Your task to perform on an android device: open chrome and create a bookmark for the current page Image 0: 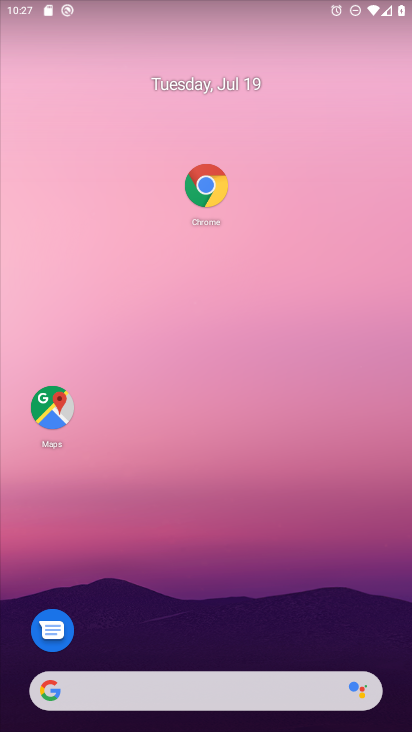
Step 0: drag from (195, 654) to (260, 274)
Your task to perform on an android device: open chrome and create a bookmark for the current page Image 1: 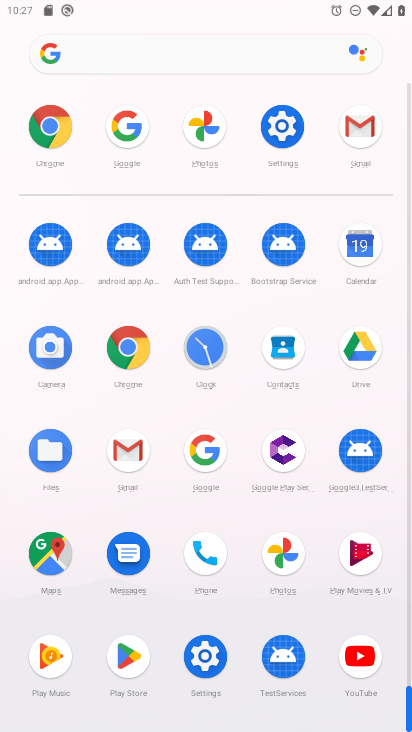
Step 1: click (33, 139)
Your task to perform on an android device: open chrome and create a bookmark for the current page Image 2: 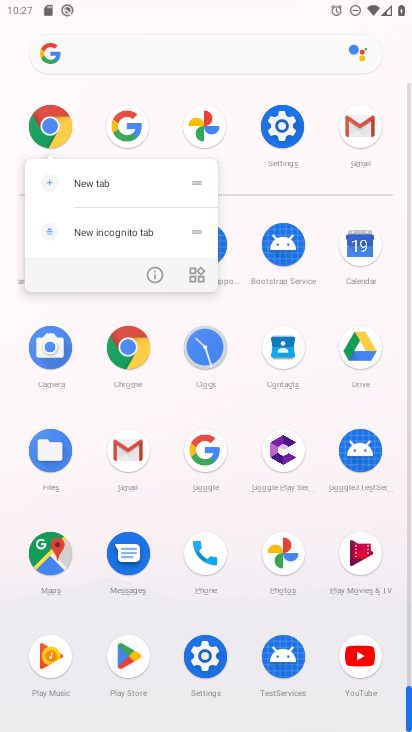
Step 2: click (114, 365)
Your task to perform on an android device: open chrome and create a bookmark for the current page Image 3: 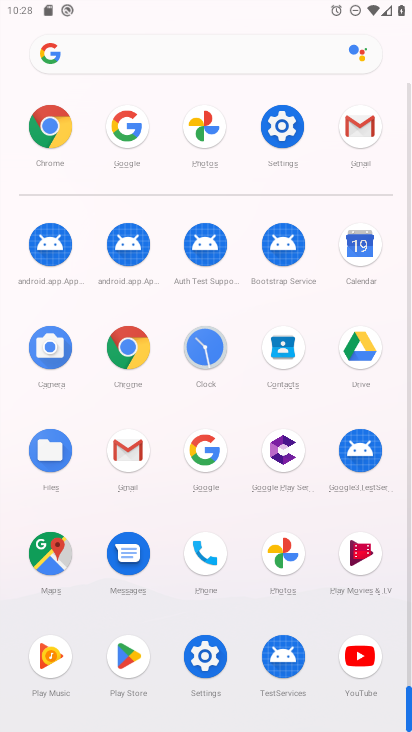
Step 3: click (61, 149)
Your task to perform on an android device: open chrome and create a bookmark for the current page Image 4: 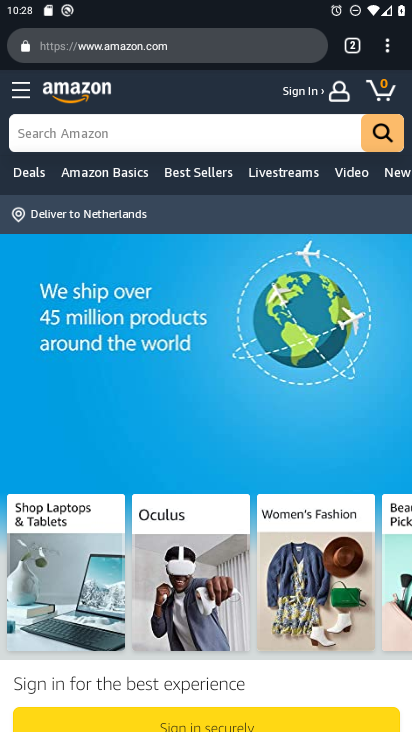
Step 4: click (390, 62)
Your task to perform on an android device: open chrome and create a bookmark for the current page Image 5: 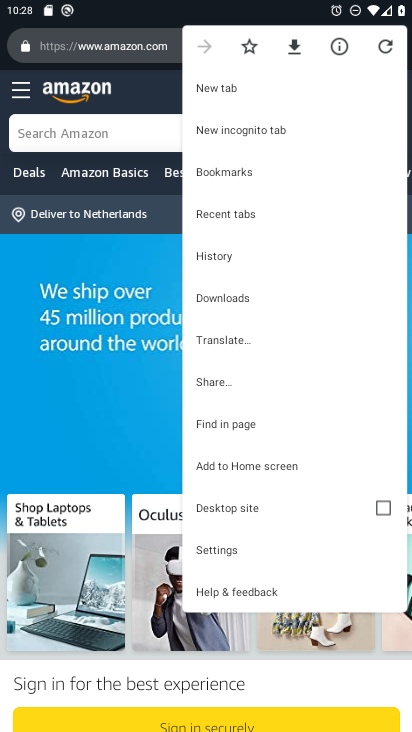
Step 5: click (247, 47)
Your task to perform on an android device: open chrome and create a bookmark for the current page Image 6: 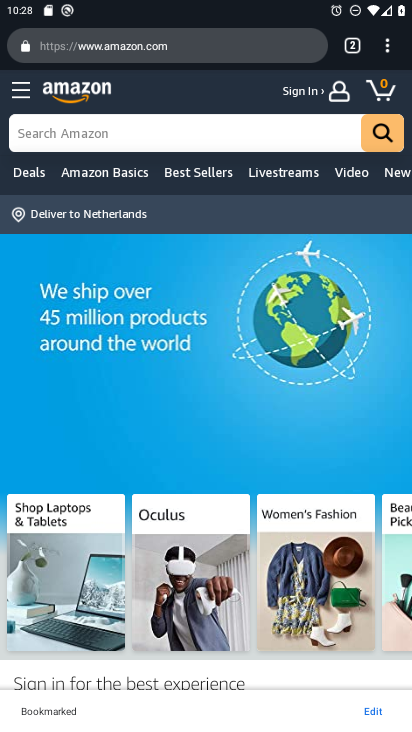
Step 6: task complete